Your task to perform on an android device: set the timer Image 0: 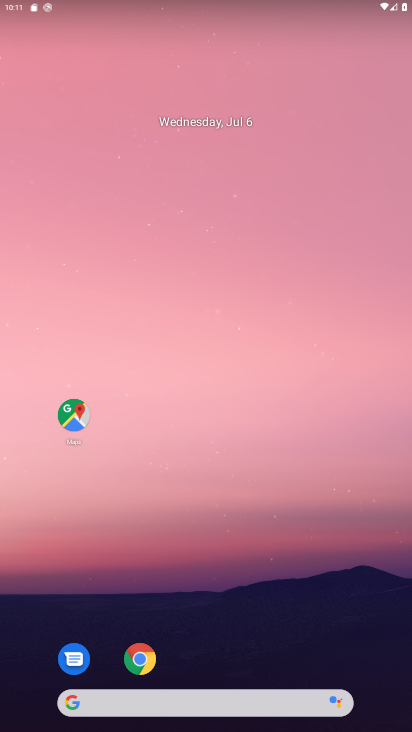
Step 0: drag from (240, 491) to (268, 25)
Your task to perform on an android device: set the timer Image 1: 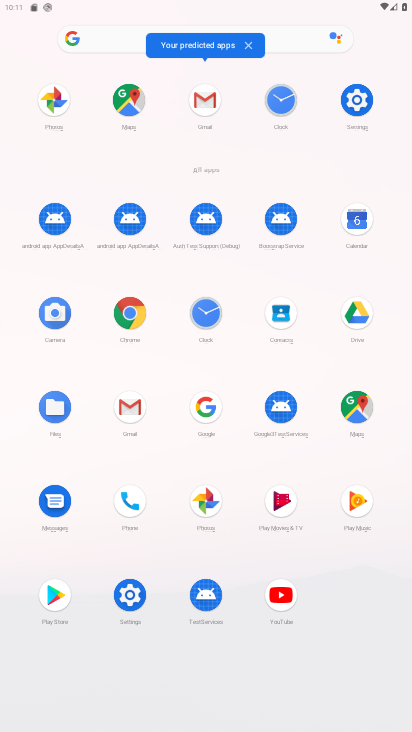
Step 1: click (202, 310)
Your task to perform on an android device: set the timer Image 2: 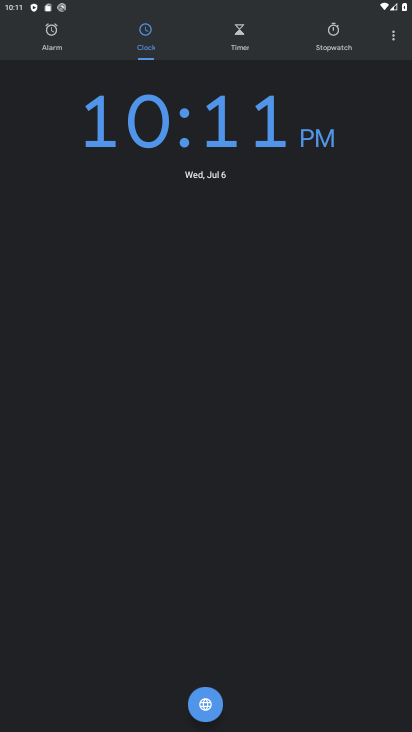
Step 2: click (244, 30)
Your task to perform on an android device: set the timer Image 3: 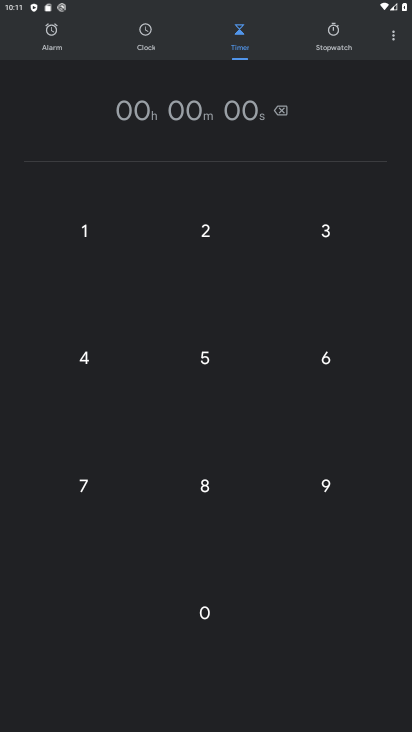
Step 3: click (215, 228)
Your task to perform on an android device: set the timer Image 4: 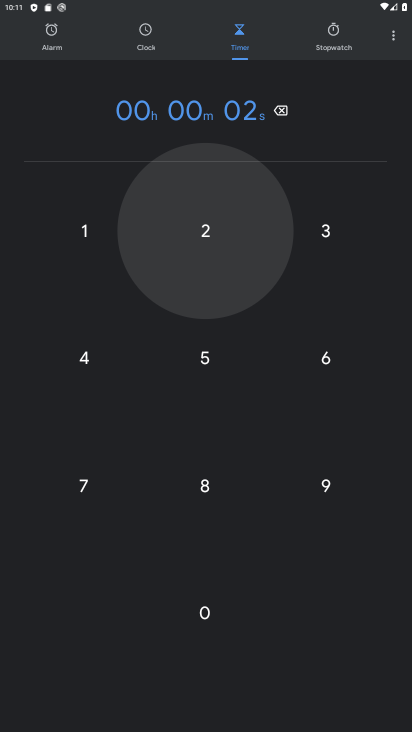
Step 4: click (345, 222)
Your task to perform on an android device: set the timer Image 5: 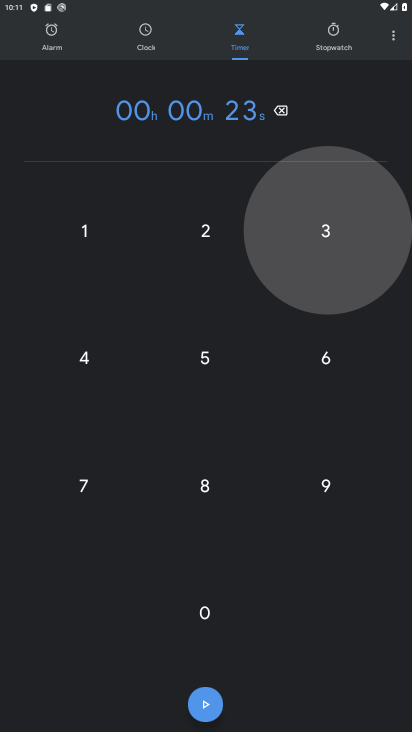
Step 5: click (217, 336)
Your task to perform on an android device: set the timer Image 6: 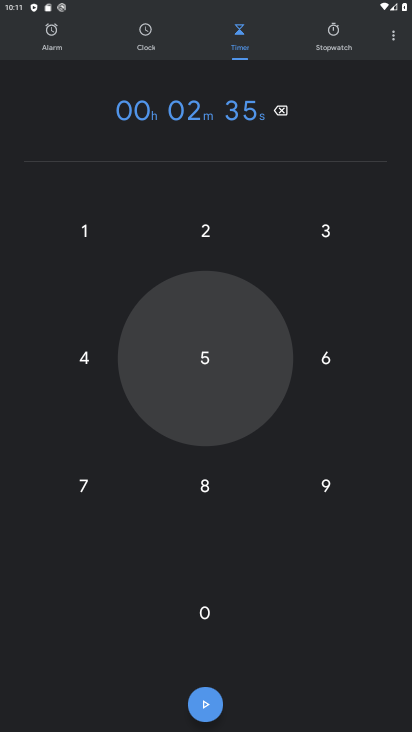
Step 6: click (108, 346)
Your task to perform on an android device: set the timer Image 7: 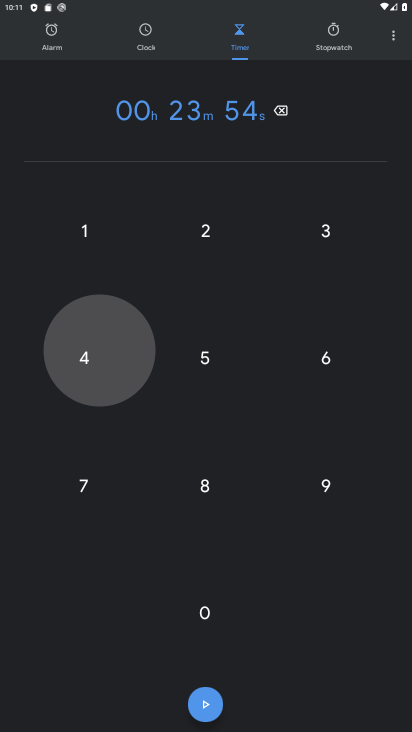
Step 7: click (325, 332)
Your task to perform on an android device: set the timer Image 8: 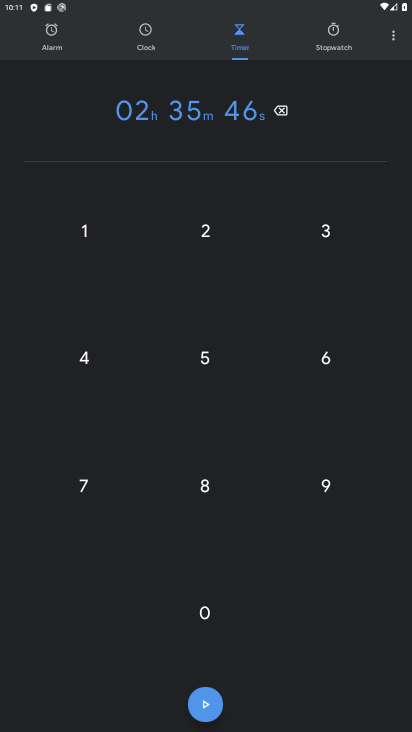
Step 8: task complete